Your task to perform on an android device: turn off improve location accuracy Image 0: 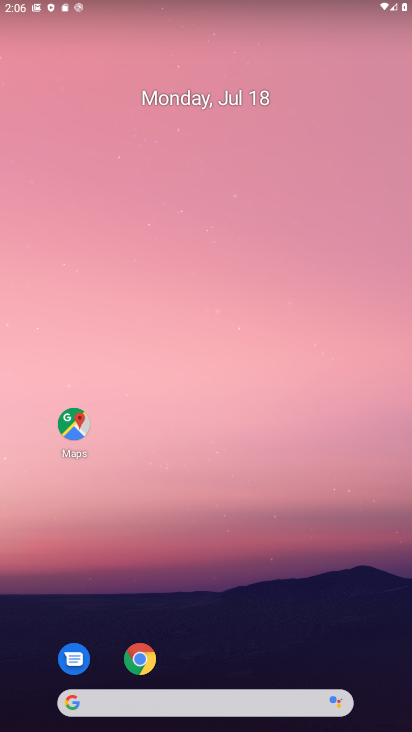
Step 0: press home button
Your task to perform on an android device: turn off improve location accuracy Image 1: 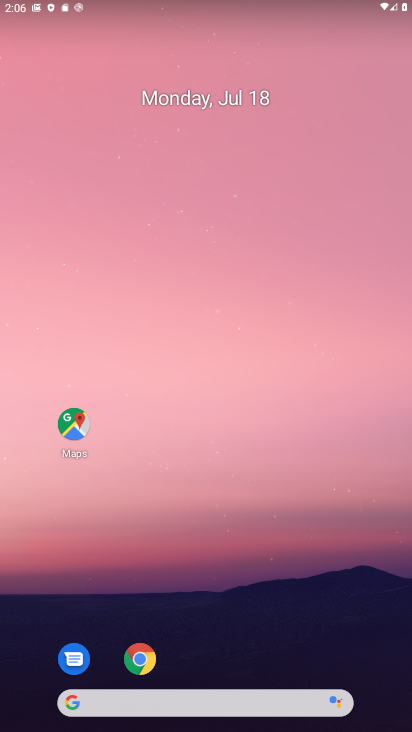
Step 1: drag from (198, 694) to (180, 162)
Your task to perform on an android device: turn off improve location accuracy Image 2: 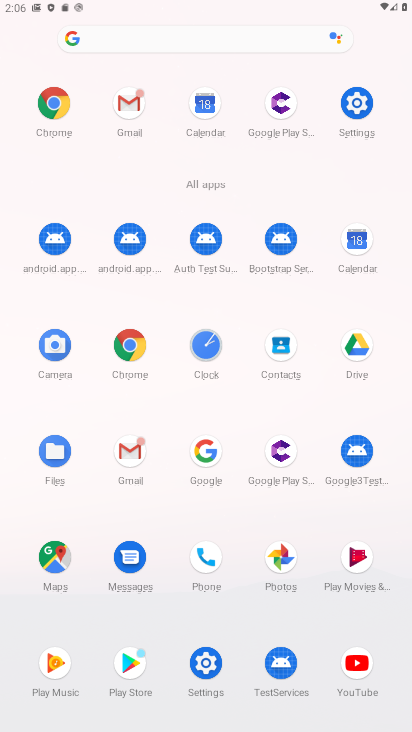
Step 2: click (361, 121)
Your task to perform on an android device: turn off improve location accuracy Image 3: 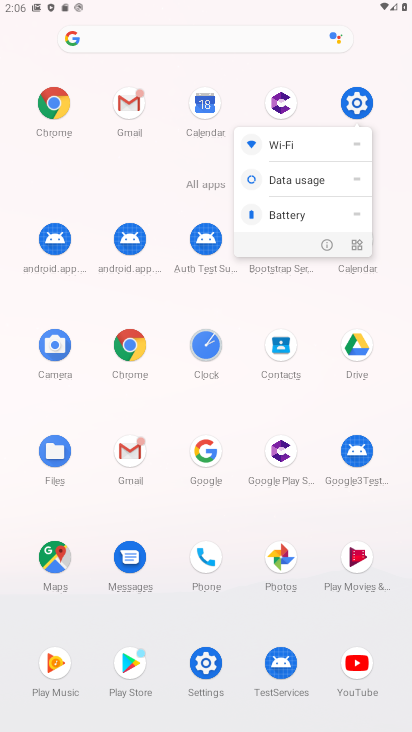
Step 3: click (343, 108)
Your task to perform on an android device: turn off improve location accuracy Image 4: 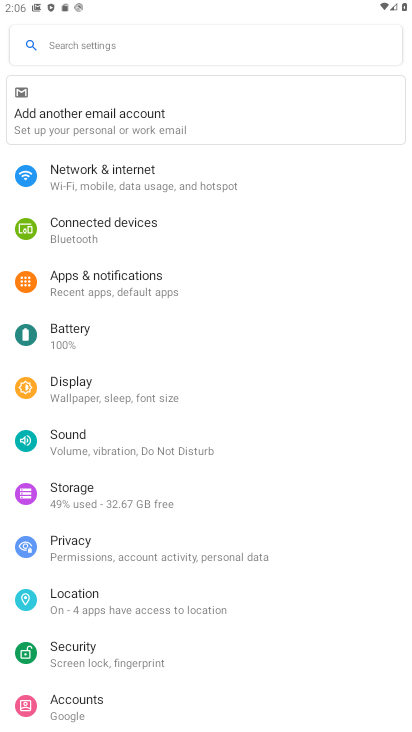
Step 4: click (93, 609)
Your task to perform on an android device: turn off improve location accuracy Image 5: 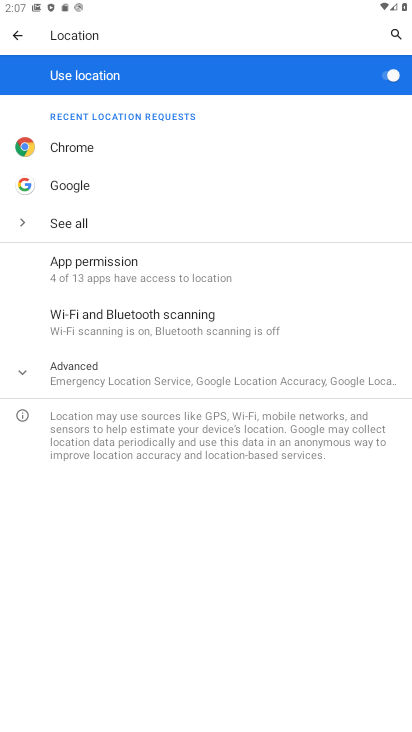
Step 5: click (86, 374)
Your task to perform on an android device: turn off improve location accuracy Image 6: 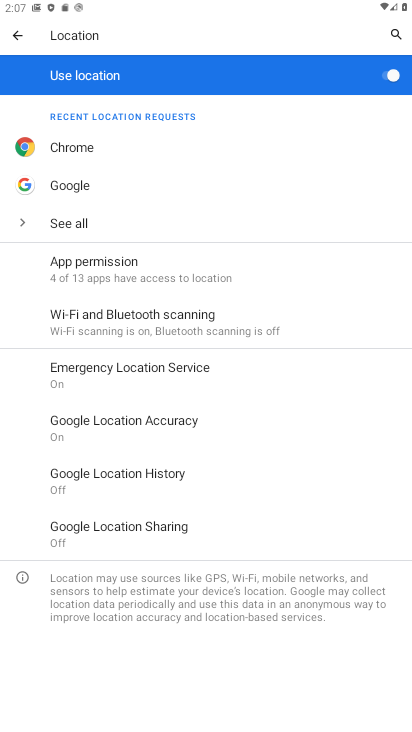
Step 6: click (175, 425)
Your task to perform on an android device: turn off improve location accuracy Image 7: 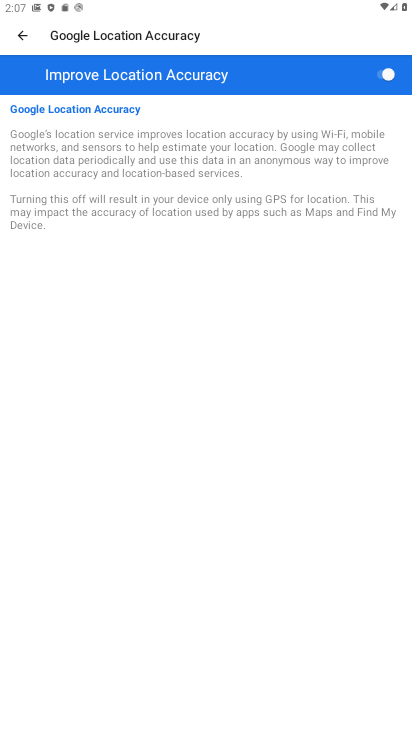
Step 7: click (383, 77)
Your task to perform on an android device: turn off improve location accuracy Image 8: 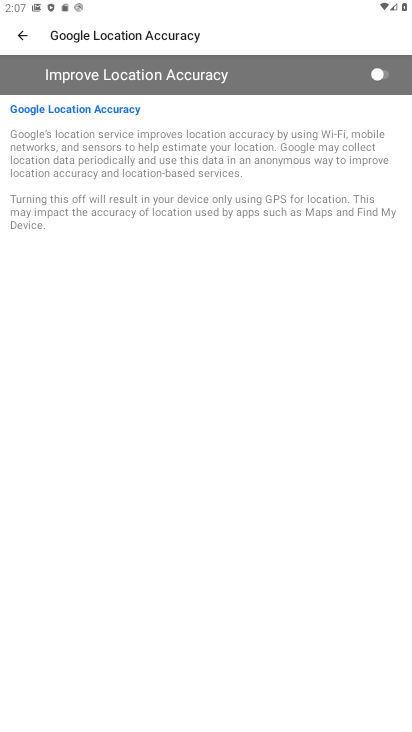
Step 8: task complete